Your task to perform on an android device: turn vacation reply on in the gmail app Image 0: 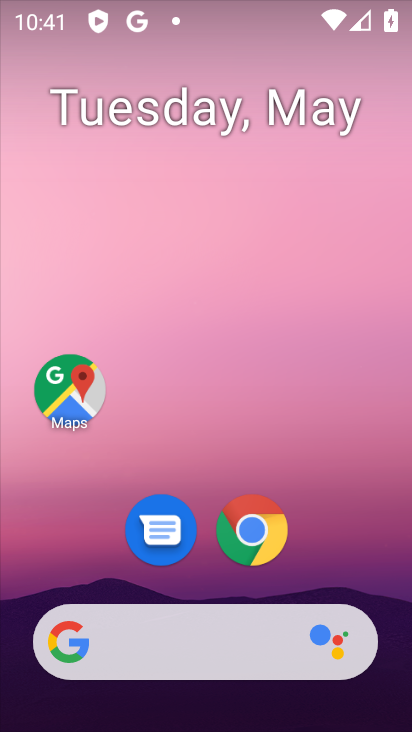
Step 0: drag from (355, 553) to (342, 137)
Your task to perform on an android device: turn vacation reply on in the gmail app Image 1: 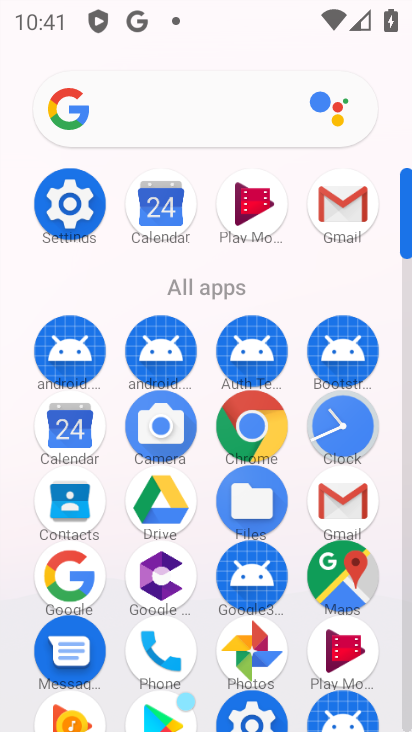
Step 1: click (335, 227)
Your task to perform on an android device: turn vacation reply on in the gmail app Image 2: 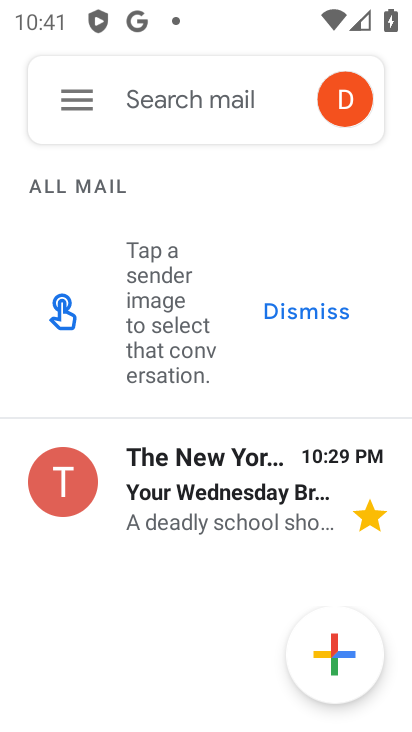
Step 2: click (48, 104)
Your task to perform on an android device: turn vacation reply on in the gmail app Image 3: 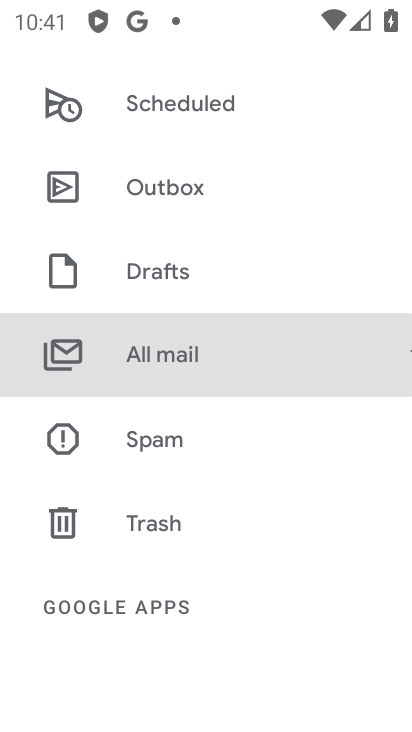
Step 3: drag from (152, 564) to (264, 173)
Your task to perform on an android device: turn vacation reply on in the gmail app Image 4: 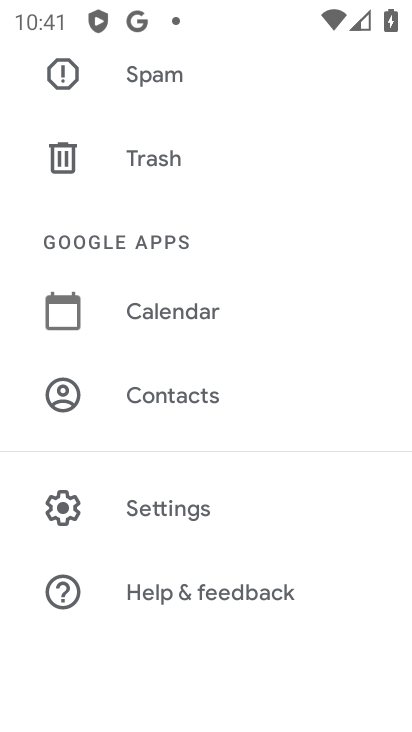
Step 4: click (170, 514)
Your task to perform on an android device: turn vacation reply on in the gmail app Image 5: 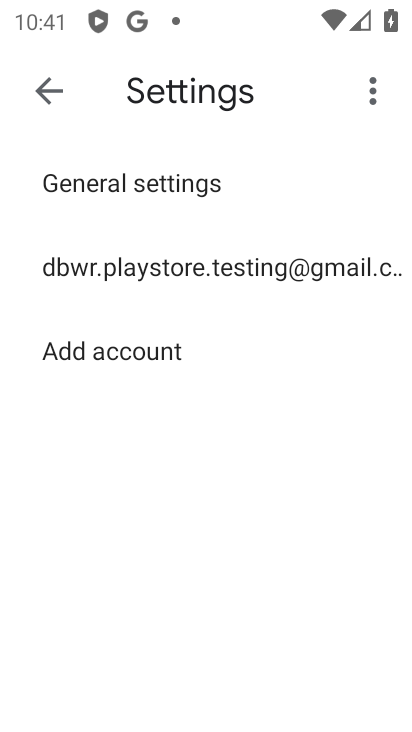
Step 5: click (187, 266)
Your task to perform on an android device: turn vacation reply on in the gmail app Image 6: 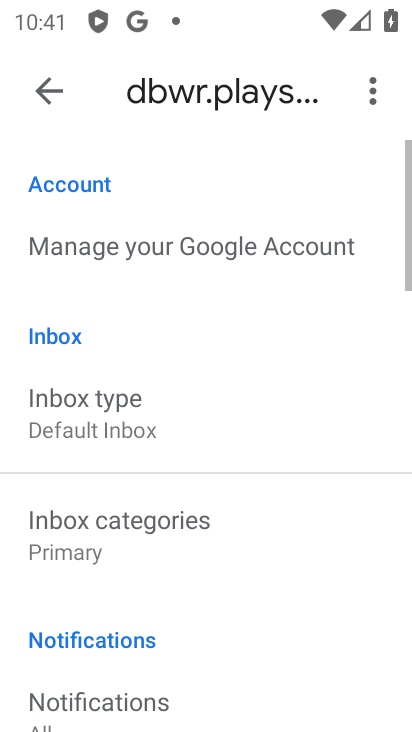
Step 6: drag from (223, 581) to (309, 71)
Your task to perform on an android device: turn vacation reply on in the gmail app Image 7: 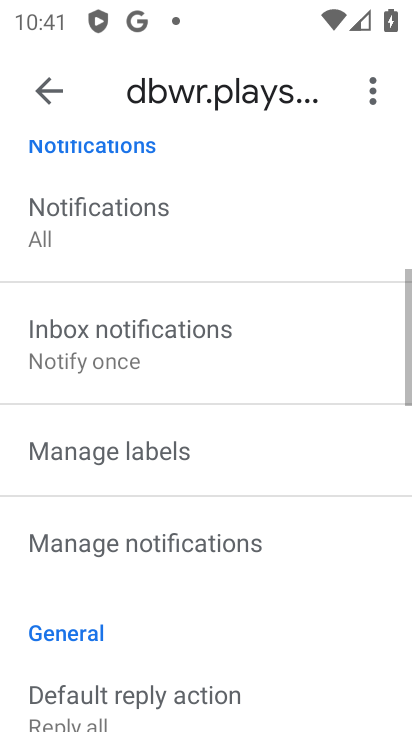
Step 7: drag from (216, 555) to (318, 109)
Your task to perform on an android device: turn vacation reply on in the gmail app Image 8: 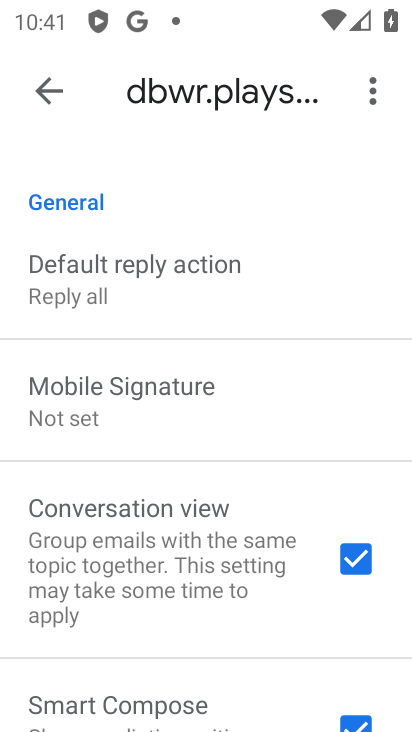
Step 8: drag from (175, 567) to (257, 137)
Your task to perform on an android device: turn vacation reply on in the gmail app Image 9: 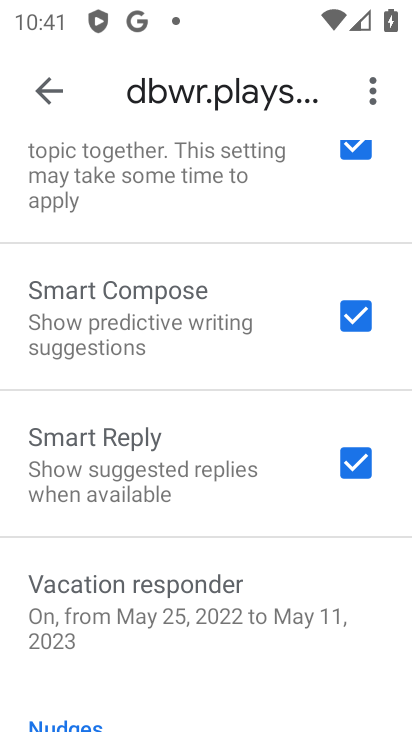
Step 9: click (135, 580)
Your task to perform on an android device: turn vacation reply on in the gmail app Image 10: 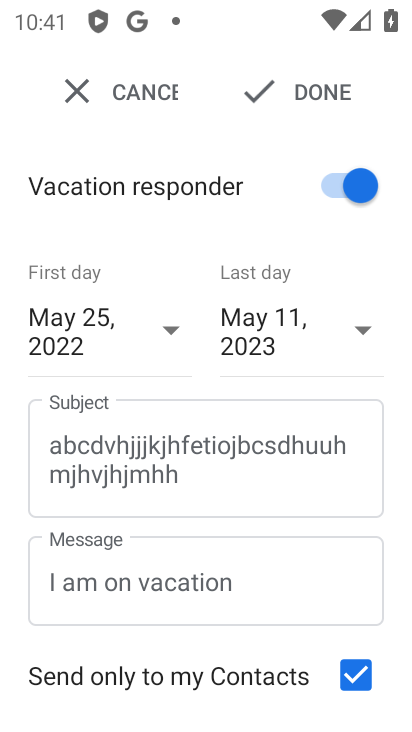
Step 10: task complete